Your task to perform on an android device: turn on improve location accuracy Image 0: 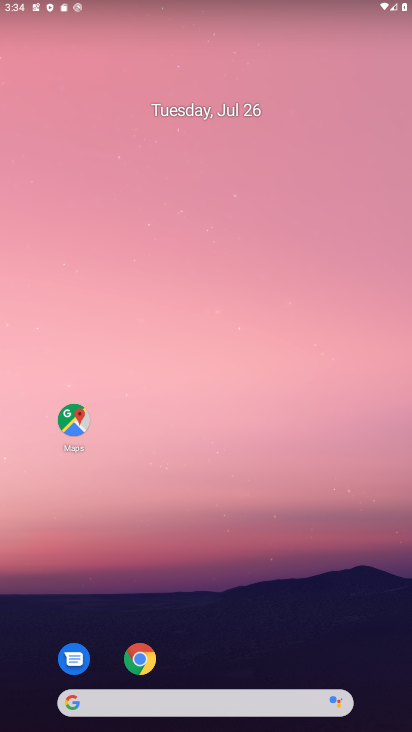
Step 0: drag from (267, 642) to (264, 110)
Your task to perform on an android device: turn on improve location accuracy Image 1: 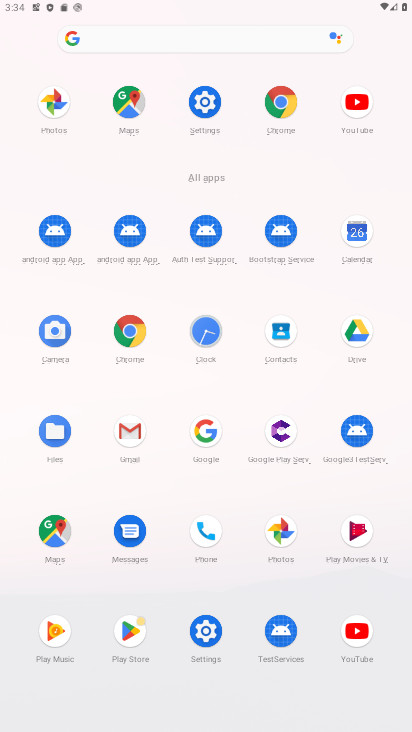
Step 1: click (202, 105)
Your task to perform on an android device: turn on improve location accuracy Image 2: 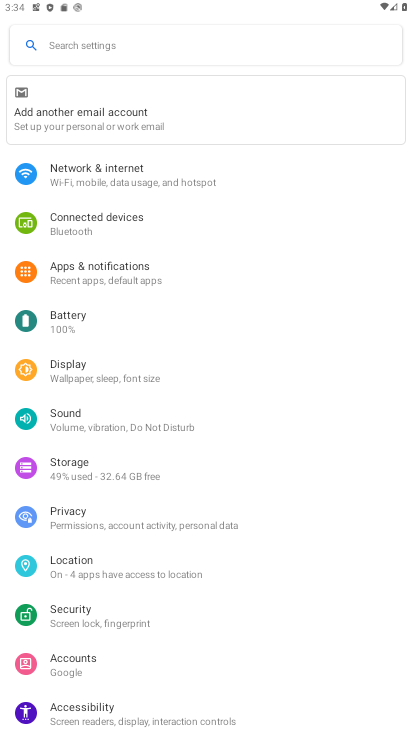
Step 2: click (93, 564)
Your task to perform on an android device: turn on improve location accuracy Image 3: 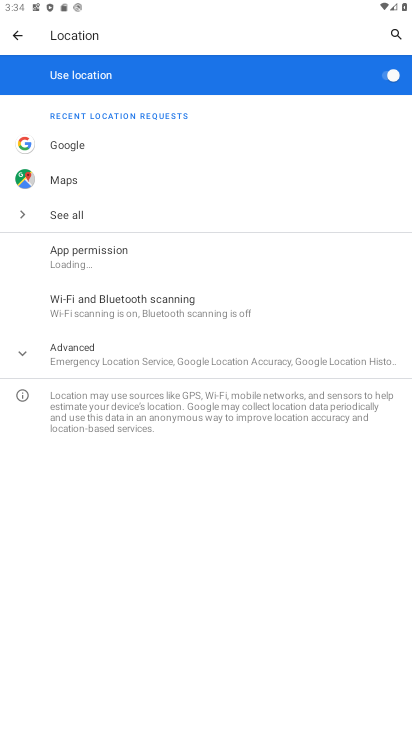
Step 3: click (150, 355)
Your task to perform on an android device: turn on improve location accuracy Image 4: 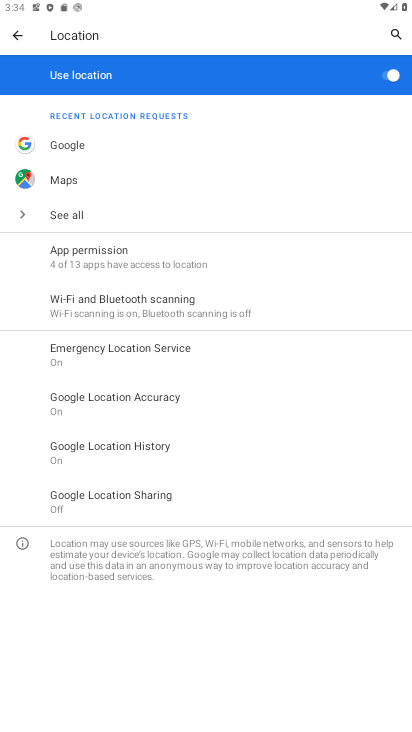
Step 4: click (144, 399)
Your task to perform on an android device: turn on improve location accuracy Image 5: 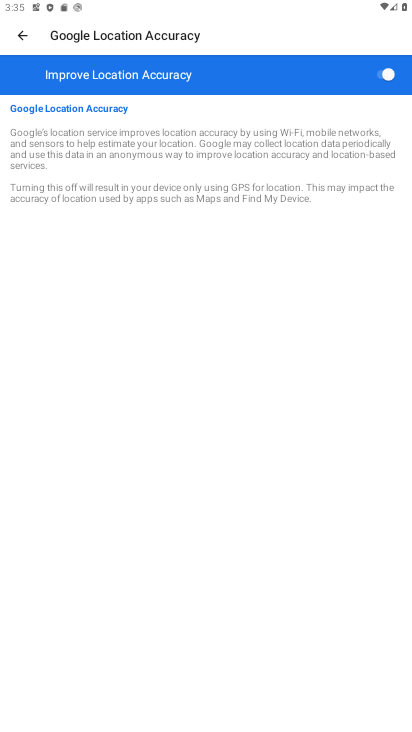
Step 5: task complete